Your task to perform on an android device: toggle priority inbox in the gmail app Image 0: 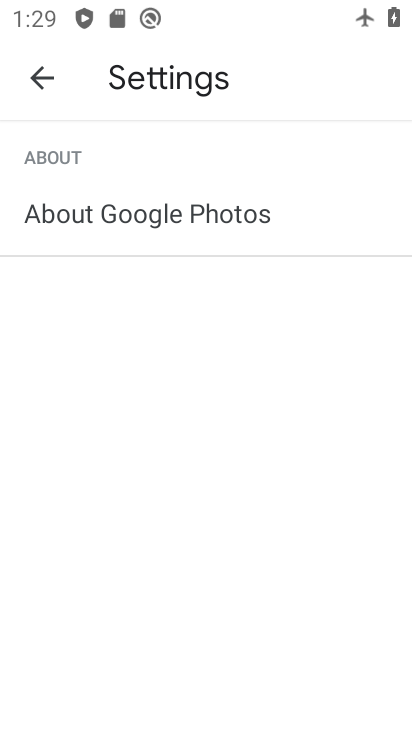
Step 0: click (48, 76)
Your task to perform on an android device: toggle priority inbox in the gmail app Image 1: 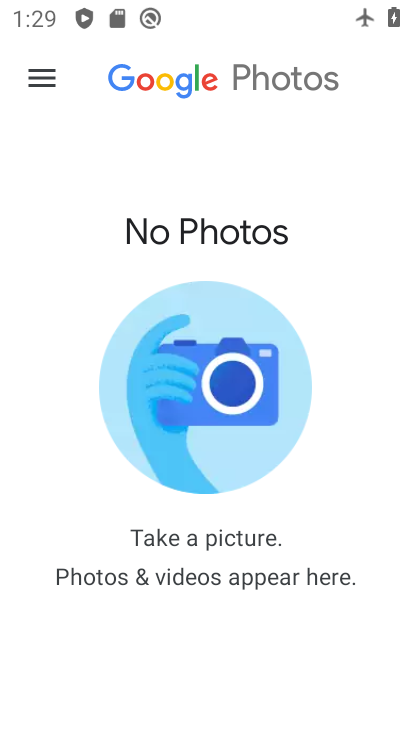
Step 1: press home button
Your task to perform on an android device: toggle priority inbox in the gmail app Image 2: 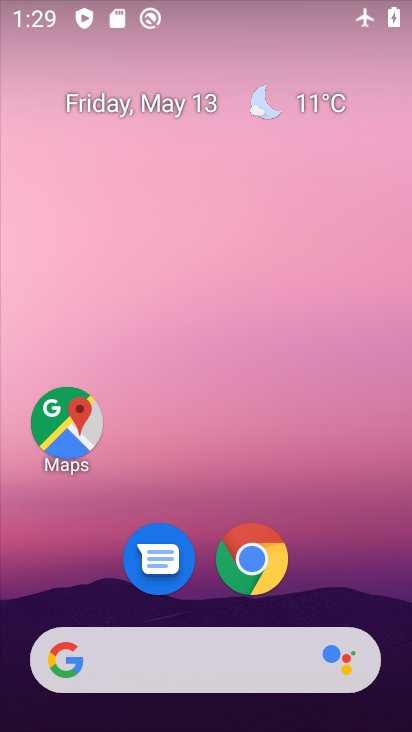
Step 2: drag from (396, 429) to (389, 263)
Your task to perform on an android device: toggle priority inbox in the gmail app Image 3: 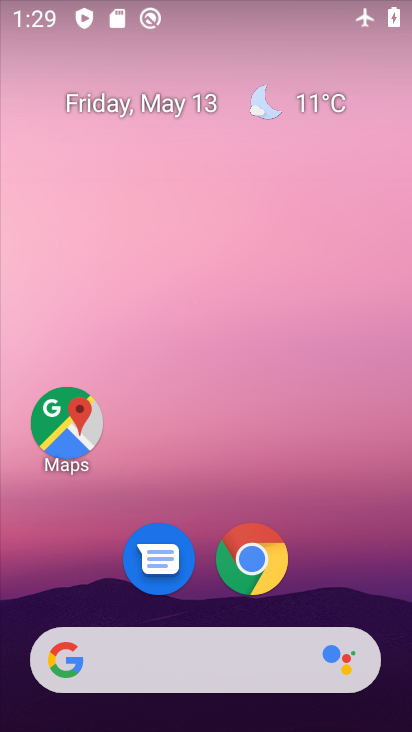
Step 3: drag from (396, 664) to (363, 169)
Your task to perform on an android device: toggle priority inbox in the gmail app Image 4: 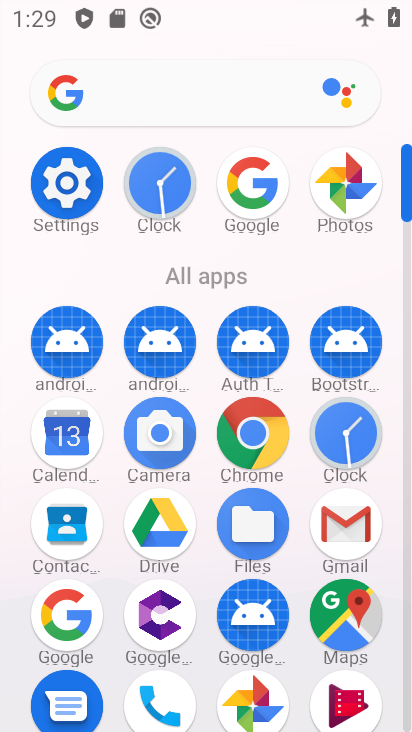
Step 4: click (62, 170)
Your task to perform on an android device: toggle priority inbox in the gmail app Image 5: 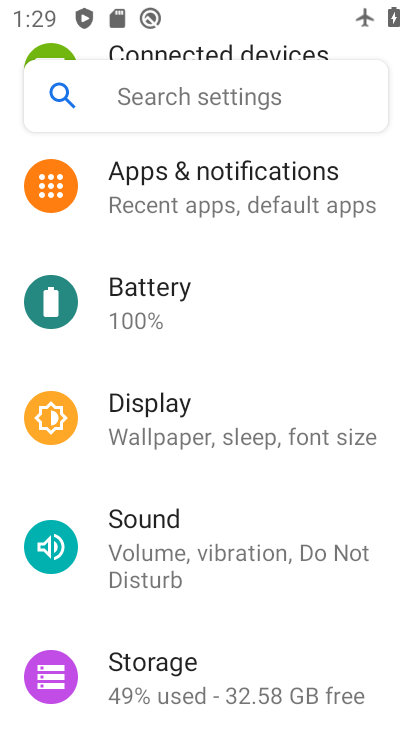
Step 5: drag from (214, 175) to (288, 502)
Your task to perform on an android device: toggle priority inbox in the gmail app Image 6: 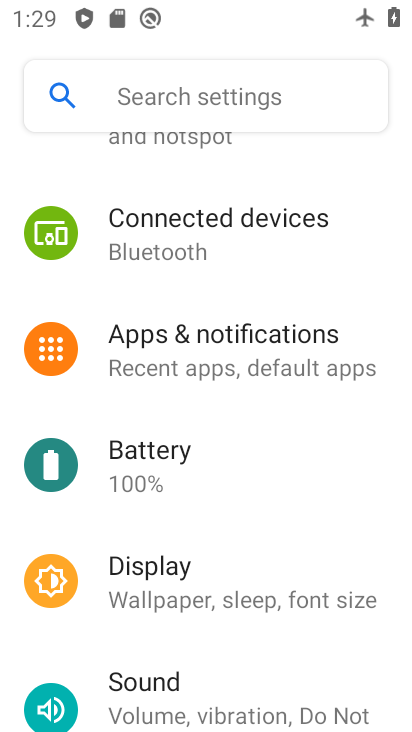
Step 6: drag from (268, 165) to (301, 454)
Your task to perform on an android device: toggle priority inbox in the gmail app Image 7: 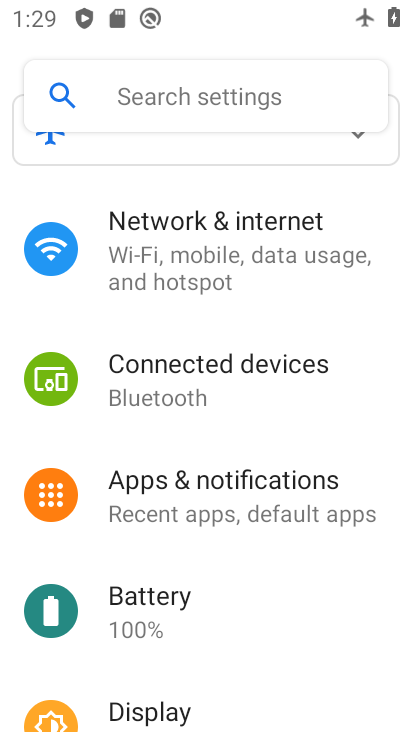
Step 7: click (209, 256)
Your task to perform on an android device: toggle priority inbox in the gmail app Image 8: 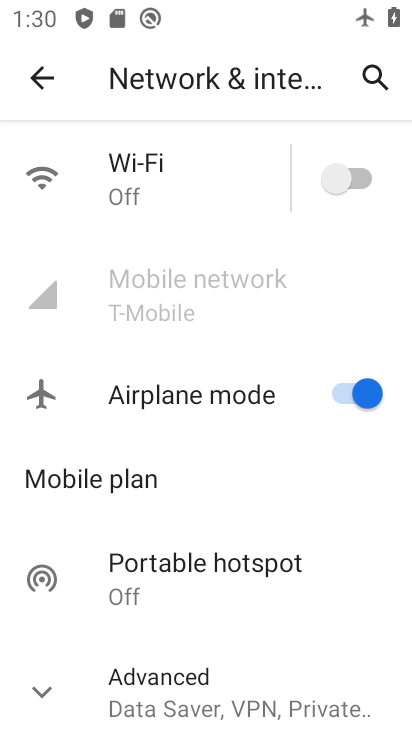
Step 8: click (361, 177)
Your task to perform on an android device: toggle priority inbox in the gmail app Image 9: 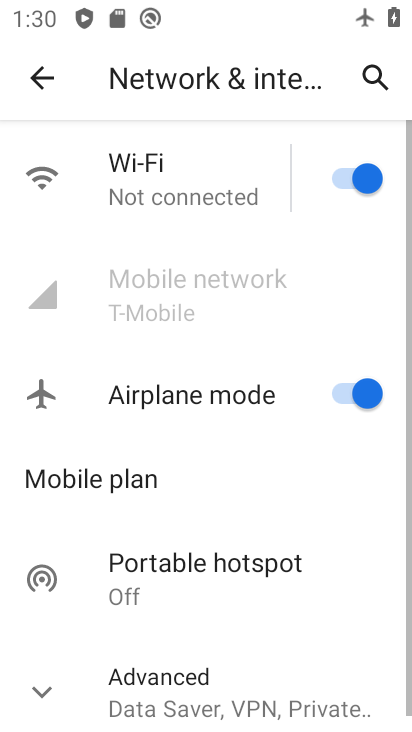
Step 9: click (344, 396)
Your task to perform on an android device: toggle priority inbox in the gmail app Image 10: 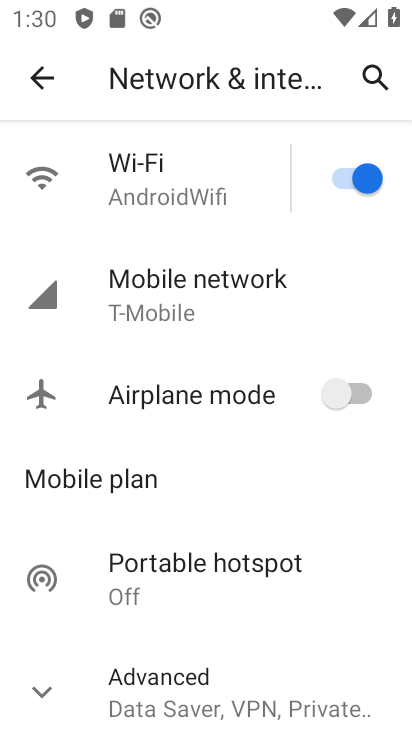
Step 10: press back button
Your task to perform on an android device: toggle priority inbox in the gmail app Image 11: 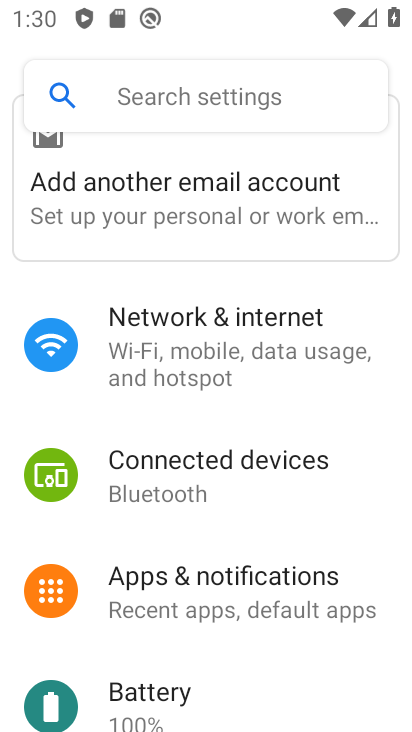
Step 11: press back button
Your task to perform on an android device: toggle priority inbox in the gmail app Image 12: 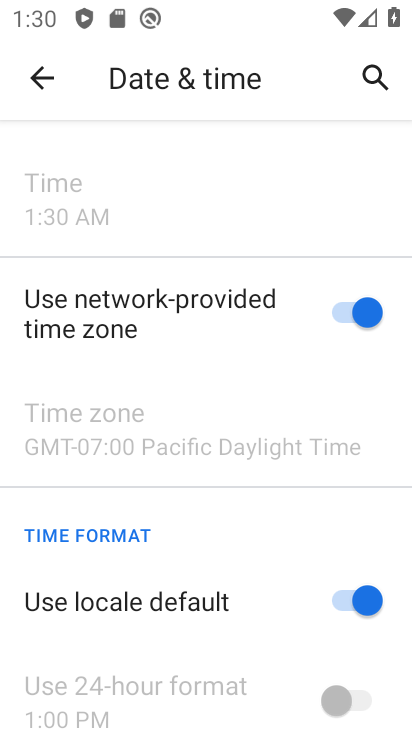
Step 12: press back button
Your task to perform on an android device: toggle priority inbox in the gmail app Image 13: 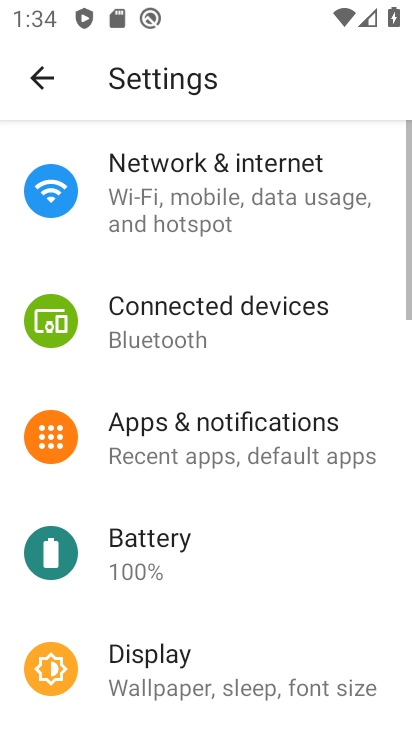
Step 13: press back button
Your task to perform on an android device: toggle priority inbox in the gmail app Image 14: 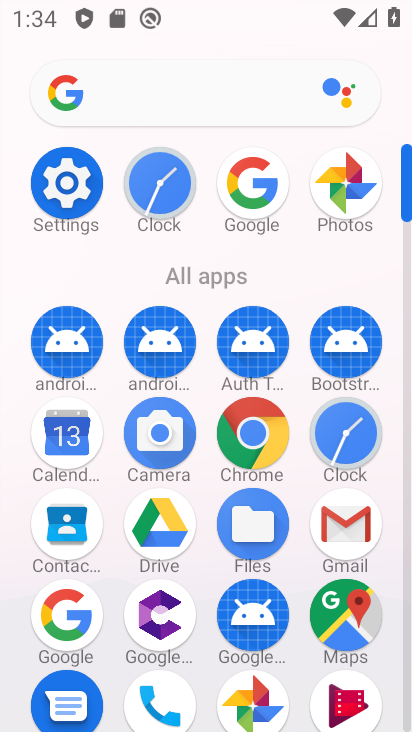
Step 14: click (361, 512)
Your task to perform on an android device: toggle priority inbox in the gmail app Image 15: 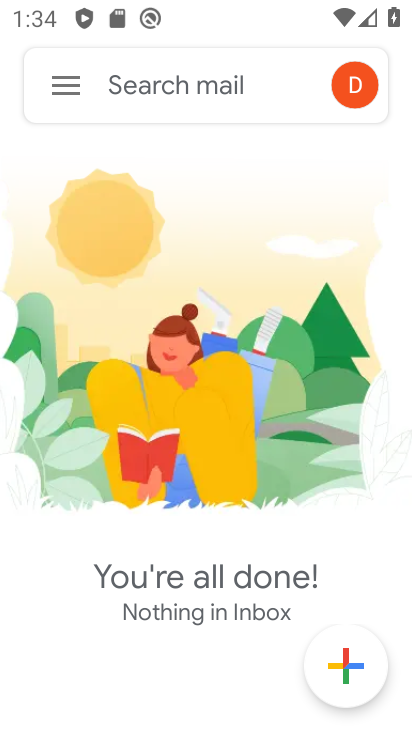
Step 15: click (66, 87)
Your task to perform on an android device: toggle priority inbox in the gmail app Image 16: 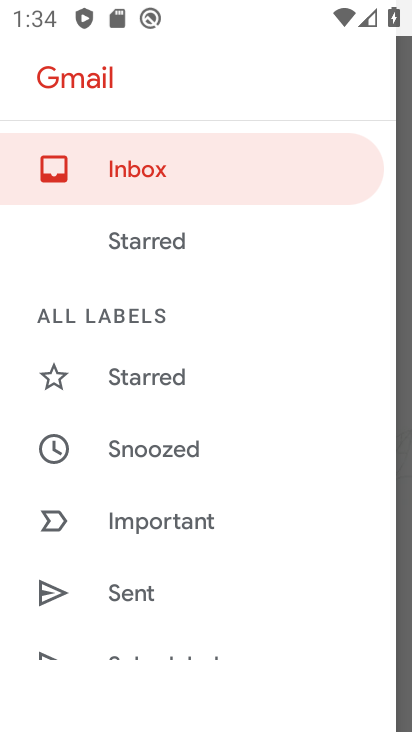
Step 16: drag from (268, 613) to (292, 362)
Your task to perform on an android device: toggle priority inbox in the gmail app Image 17: 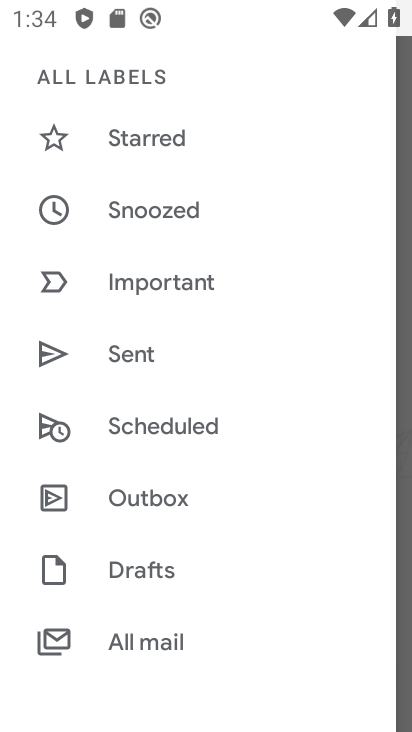
Step 17: drag from (287, 240) to (329, 608)
Your task to perform on an android device: toggle priority inbox in the gmail app Image 18: 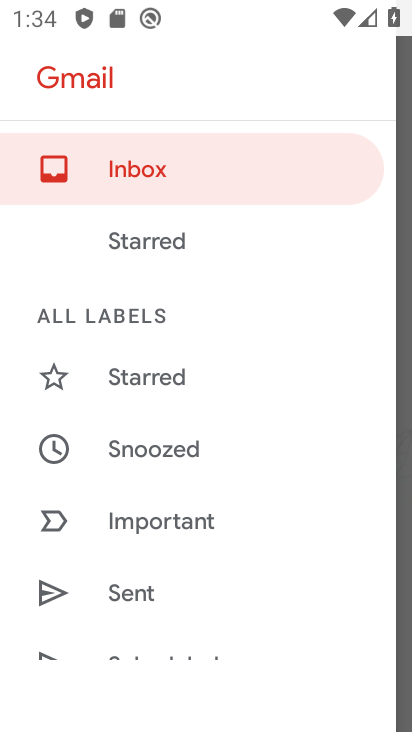
Step 18: drag from (284, 571) to (293, 235)
Your task to perform on an android device: toggle priority inbox in the gmail app Image 19: 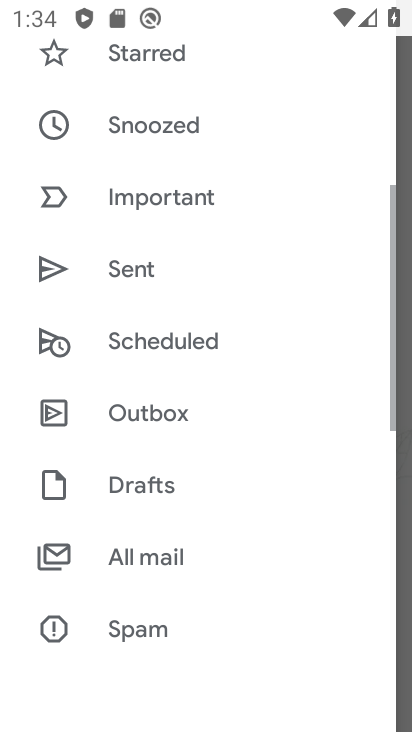
Step 19: drag from (286, 599) to (286, 295)
Your task to perform on an android device: toggle priority inbox in the gmail app Image 20: 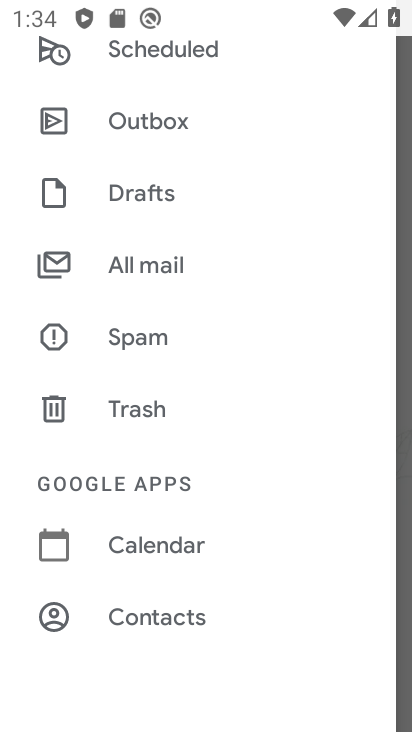
Step 20: drag from (281, 545) to (286, 311)
Your task to perform on an android device: toggle priority inbox in the gmail app Image 21: 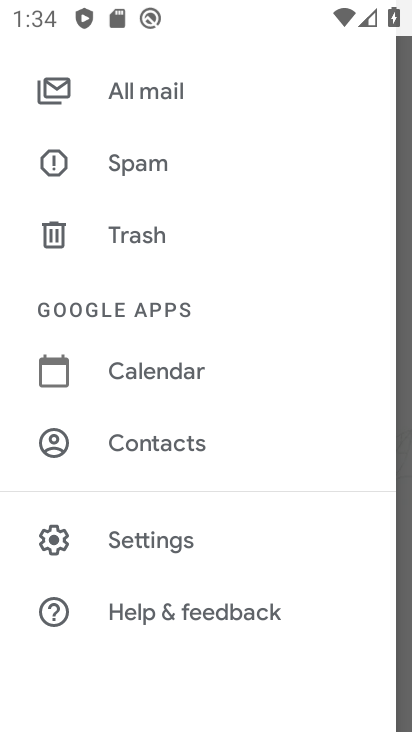
Step 21: click (157, 523)
Your task to perform on an android device: toggle priority inbox in the gmail app Image 22: 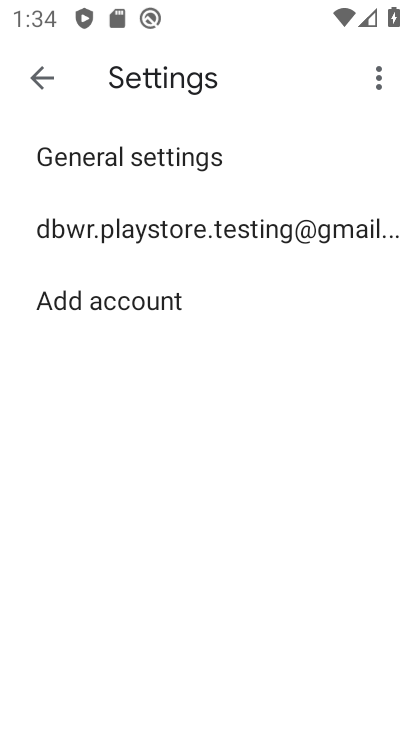
Step 22: click (106, 229)
Your task to perform on an android device: toggle priority inbox in the gmail app Image 23: 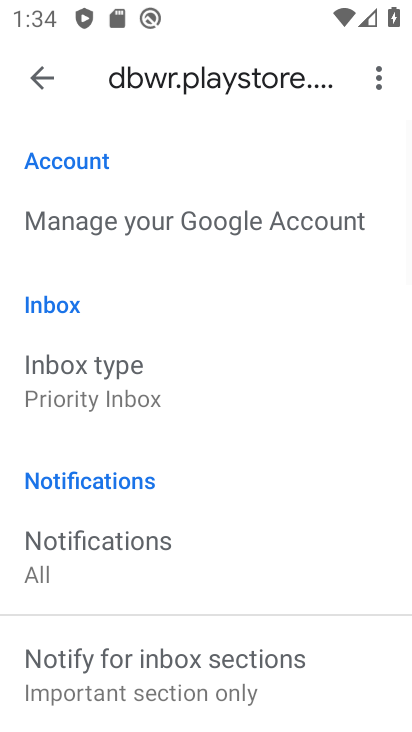
Step 23: click (78, 382)
Your task to perform on an android device: toggle priority inbox in the gmail app Image 24: 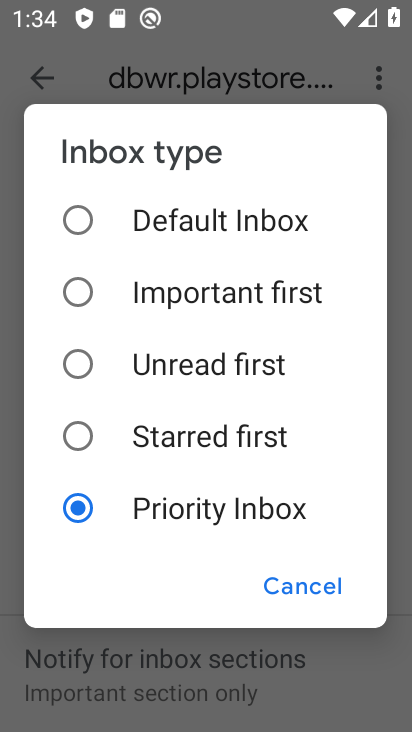
Step 24: click (77, 228)
Your task to perform on an android device: toggle priority inbox in the gmail app Image 25: 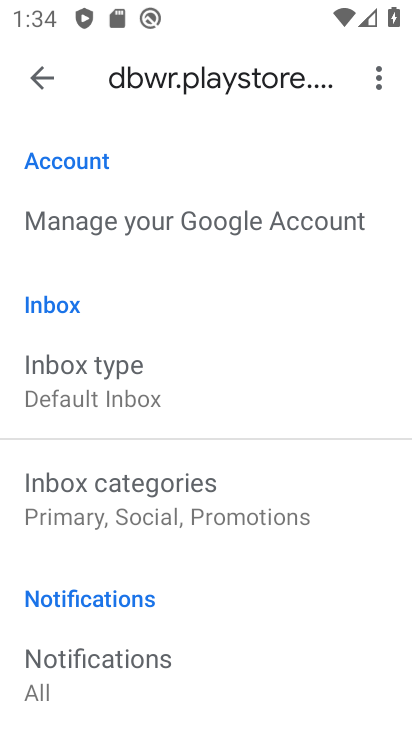
Step 25: click (126, 483)
Your task to perform on an android device: toggle priority inbox in the gmail app Image 26: 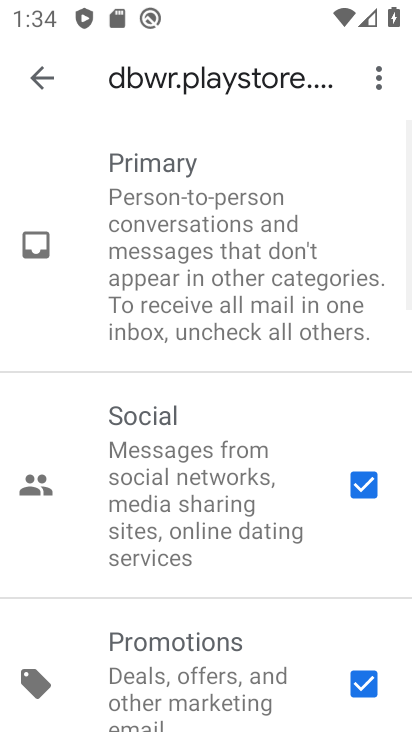
Step 26: click (354, 479)
Your task to perform on an android device: toggle priority inbox in the gmail app Image 27: 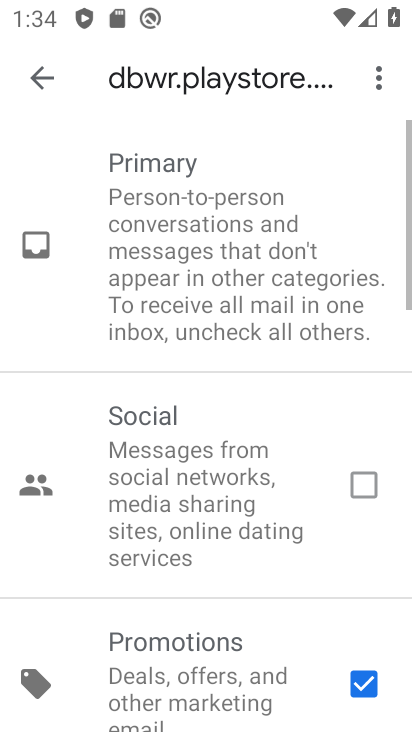
Step 27: click (375, 673)
Your task to perform on an android device: toggle priority inbox in the gmail app Image 28: 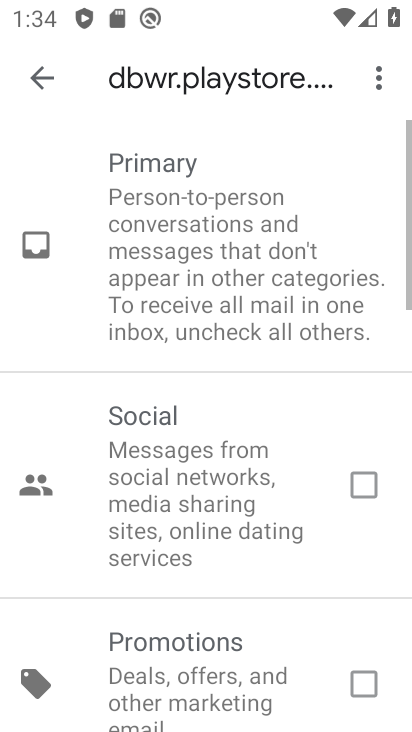
Step 28: drag from (299, 685) to (303, 416)
Your task to perform on an android device: toggle priority inbox in the gmail app Image 29: 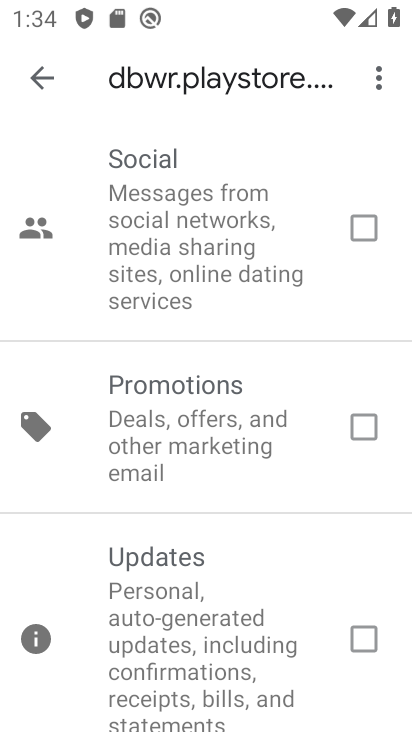
Step 29: click (43, 83)
Your task to perform on an android device: toggle priority inbox in the gmail app Image 30: 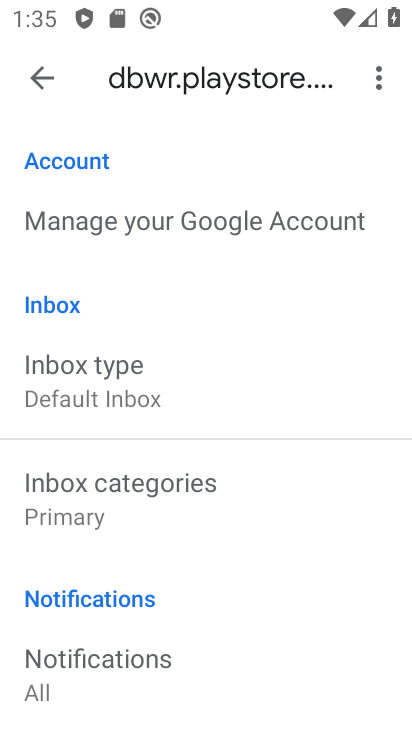
Step 30: task complete